Your task to perform on an android device: Open battery settings Image 0: 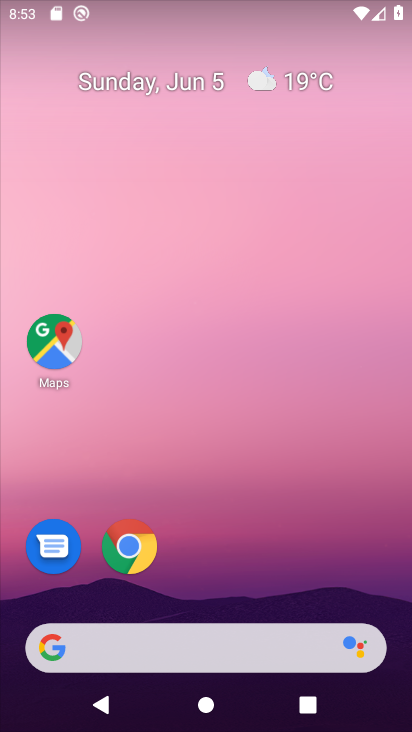
Step 0: drag from (230, 608) to (262, 67)
Your task to perform on an android device: Open battery settings Image 1: 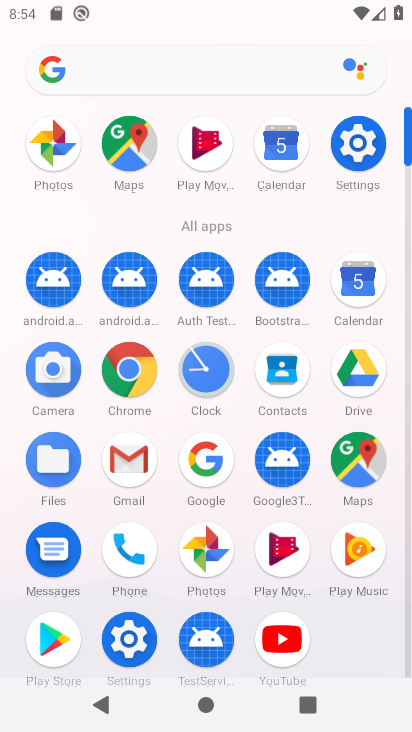
Step 1: click (133, 643)
Your task to perform on an android device: Open battery settings Image 2: 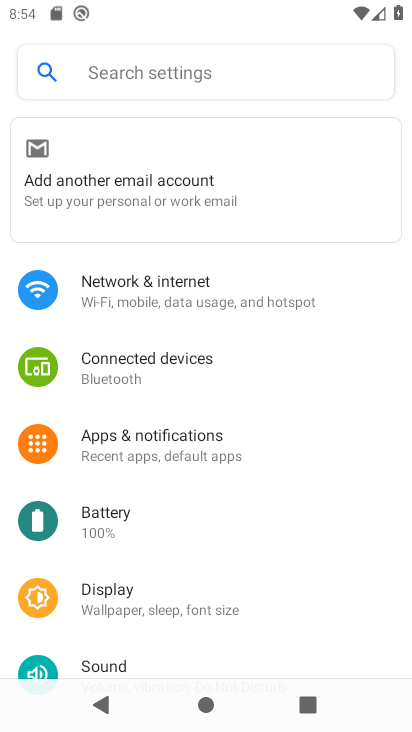
Step 2: click (117, 533)
Your task to perform on an android device: Open battery settings Image 3: 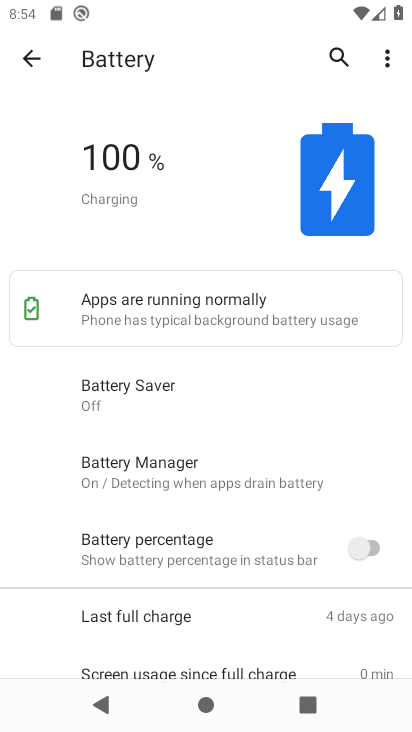
Step 3: task complete